Your task to perform on an android device: snooze an email in the gmail app Image 0: 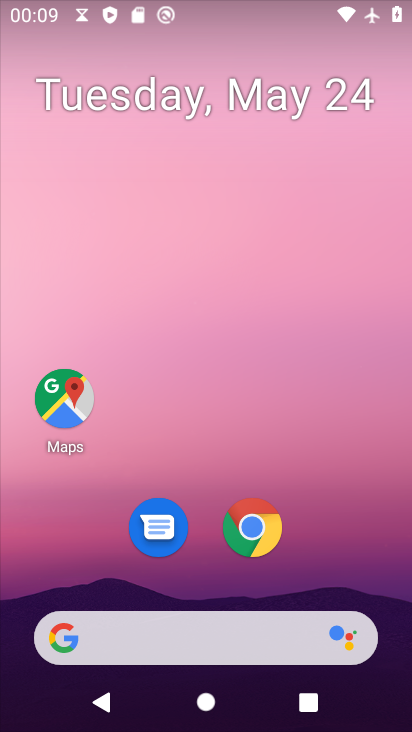
Step 0: press home button
Your task to perform on an android device: snooze an email in the gmail app Image 1: 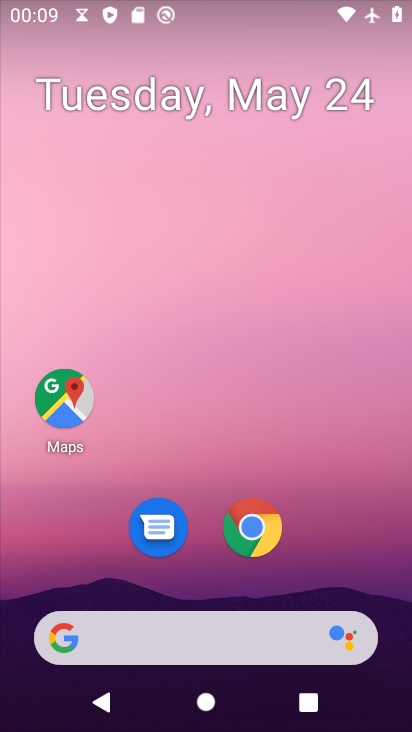
Step 1: drag from (157, 646) to (357, 51)
Your task to perform on an android device: snooze an email in the gmail app Image 2: 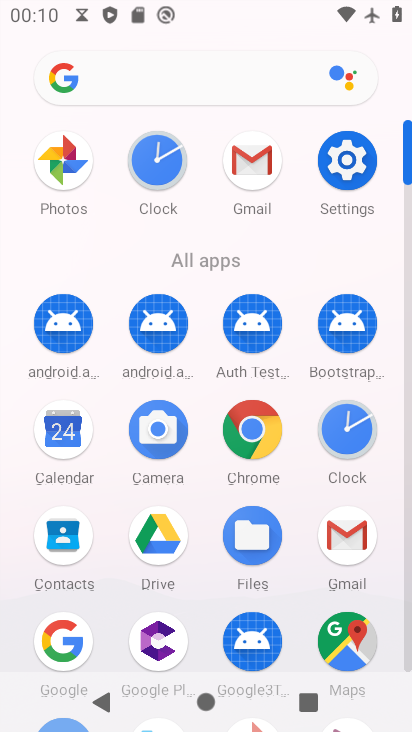
Step 2: click (260, 171)
Your task to perform on an android device: snooze an email in the gmail app Image 3: 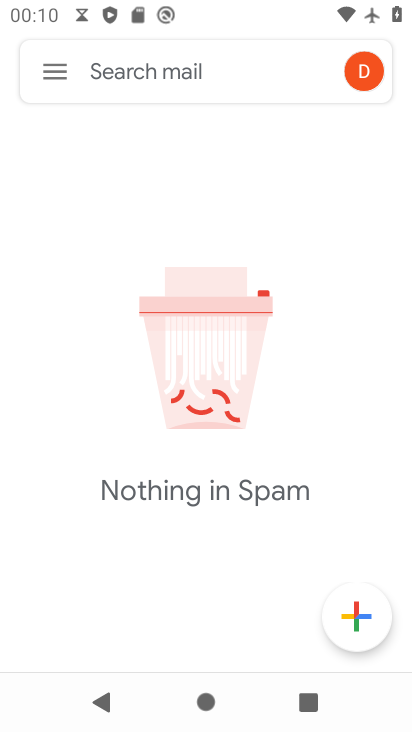
Step 3: click (60, 70)
Your task to perform on an android device: snooze an email in the gmail app Image 4: 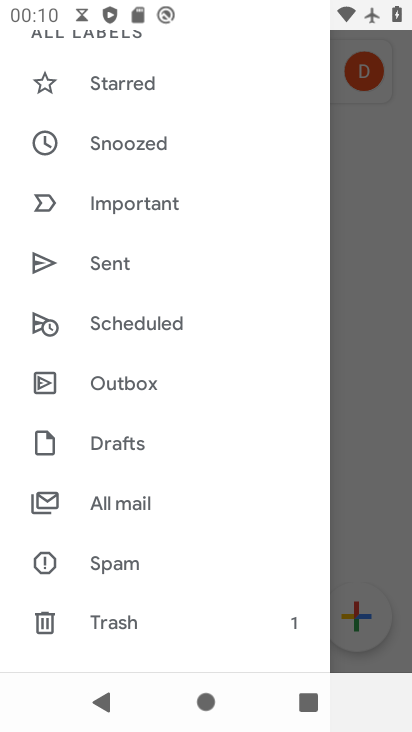
Step 4: click (149, 502)
Your task to perform on an android device: snooze an email in the gmail app Image 5: 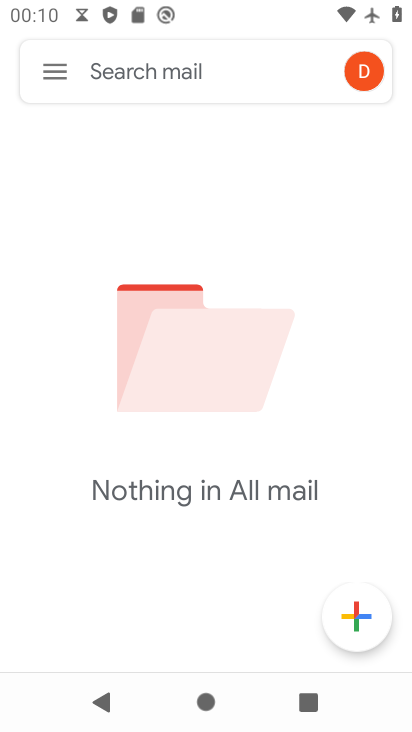
Step 5: task complete